Your task to perform on an android device: Is it going to rain tomorrow? Image 0: 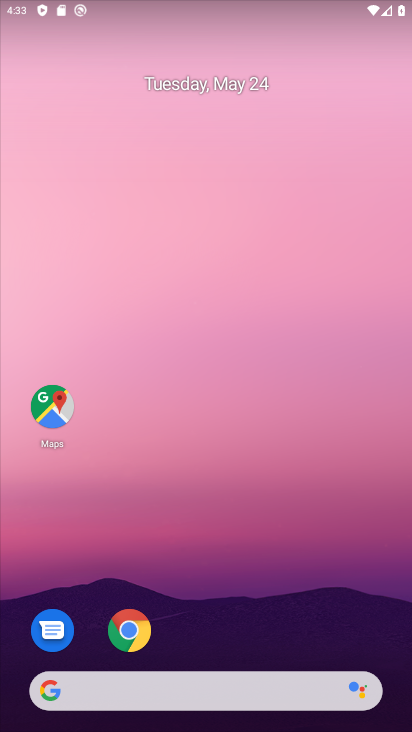
Step 0: click (229, 677)
Your task to perform on an android device: Is it going to rain tomorrow? Image 1: 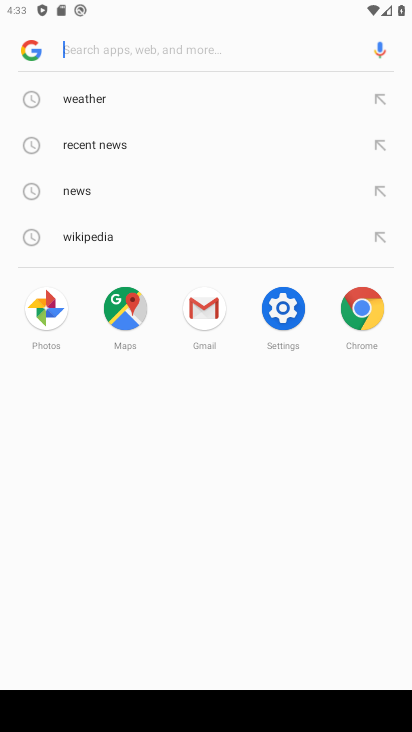
Step 1: click (96, 101)
Your task to perform on an android device: Is it going to rain tomorrow? Image 2: 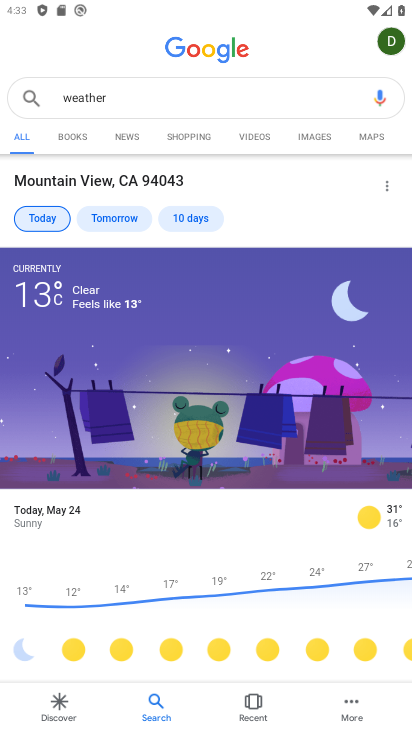
Step 2: click (132, 225)
Your task to perform on an android device: Is it going to rain tomorrow? Image 3: 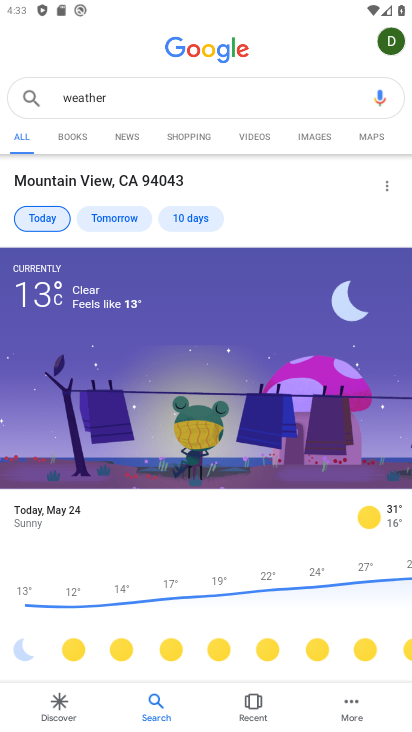
Step 3: click (132, 225)
Your task to perform on an android device: Is it going to rain tomorrow? Image 4: 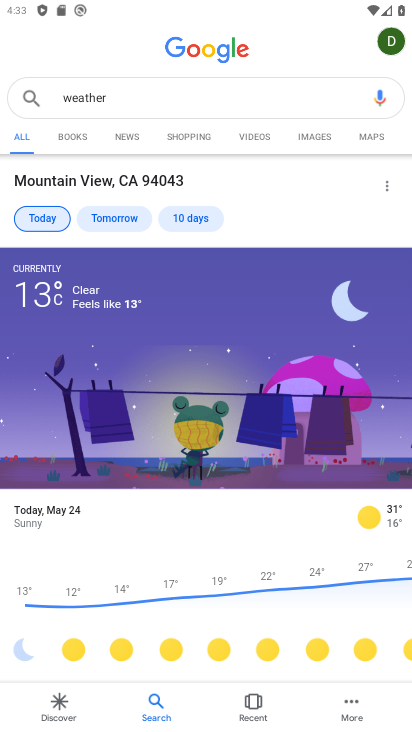
Step 4: click (132, 225)
Your task to perform on an android device: Is it going to rain tomorrow? Image 5: 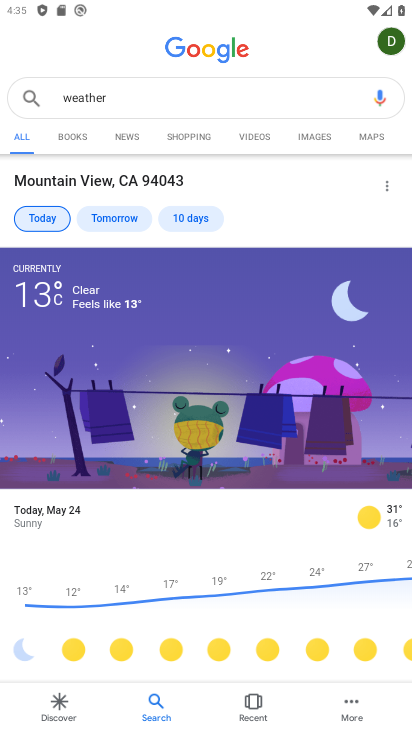
Step 5: click (114, 216)
Your task to perform on an android device: Is it going to rain tomorrow? Image 6: 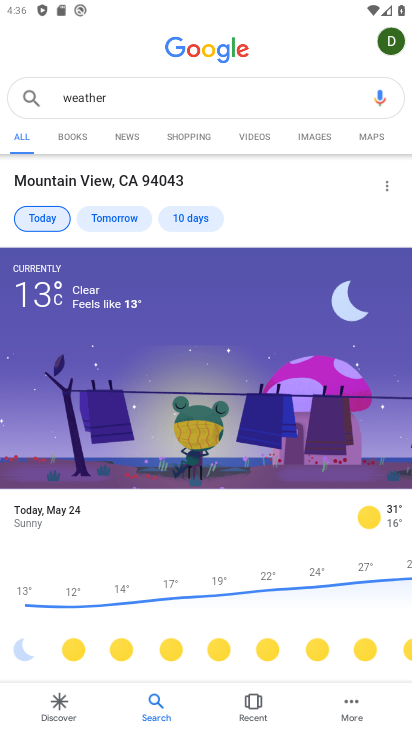
Step 6: click (114, 213)
Your task to perform on an android device: Is it going to rain tomorrow? Image 7: 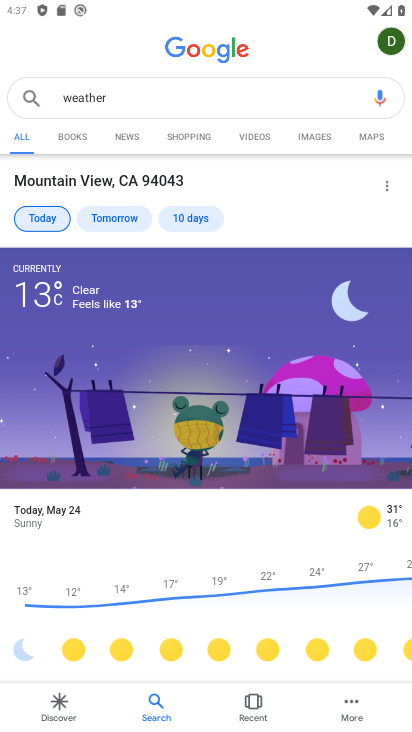
Step 7: click (139, 218)
Your task to perform on an android device: Is it going to rain tomorrow? Image 8: 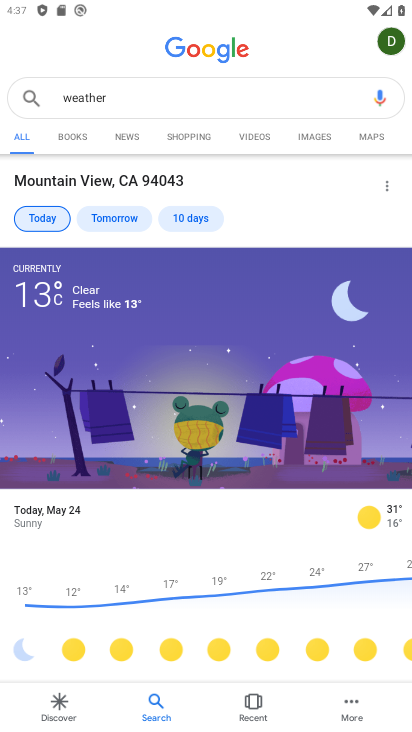
Step 8: click (139, 218)
Your task to perform on an android device: Is it going to rain tomorrow? Image 9: 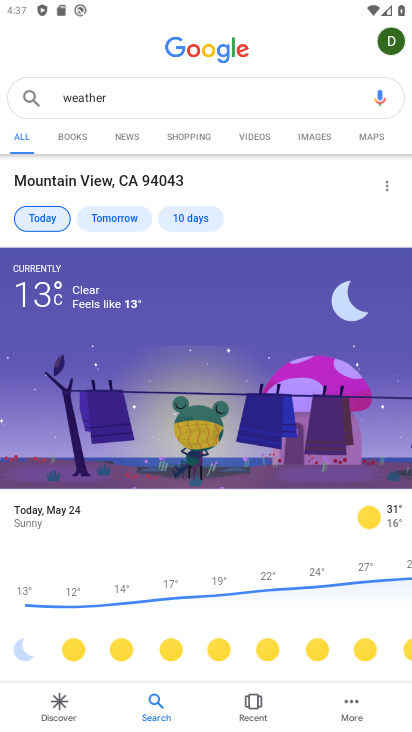
Step 9: click (139, 218)
Your task to perform on an android device: Is it going to rain tomorrow? Image 10: 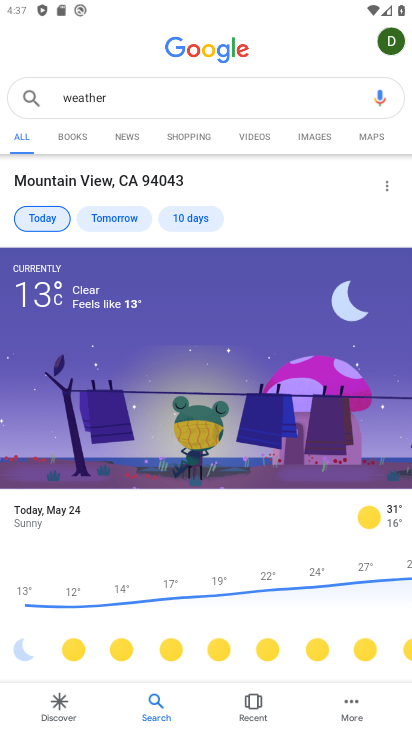
Step 10: drag from (167, 635) to (157, 282)
Your task to perform on an android device: Is it going to rain tomorrow? Image 11: 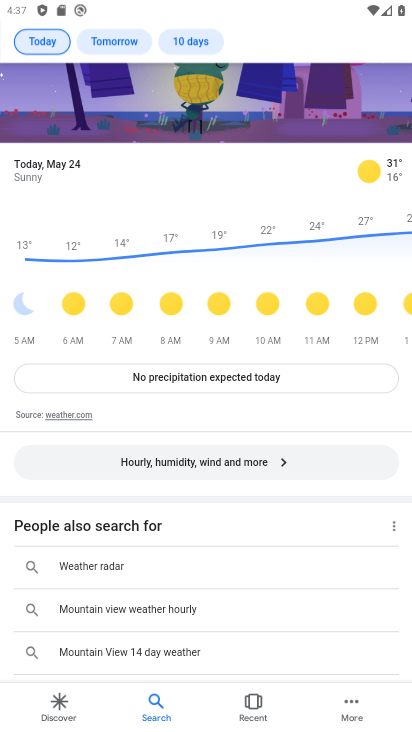
Step 11: click (75, 413)
Your task to perform on an android device: Is it going to rain tomorrow? Image 12: 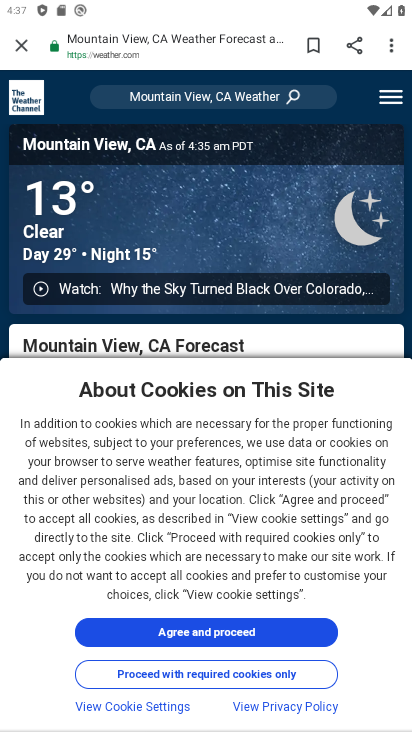
Step 12: click (285, 630)
Your task to perform on an android device: Is it going to rain tomorrow? Image 13: 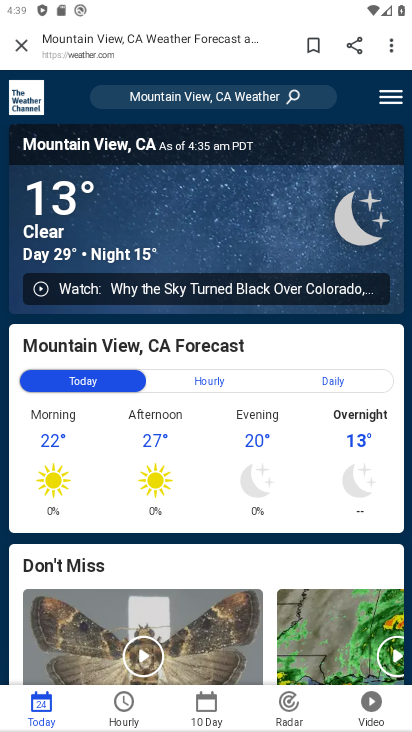
Step 13: click (209, 715)
Your task to perform on an android device: Is it going to rain tomorrow? Image 14: 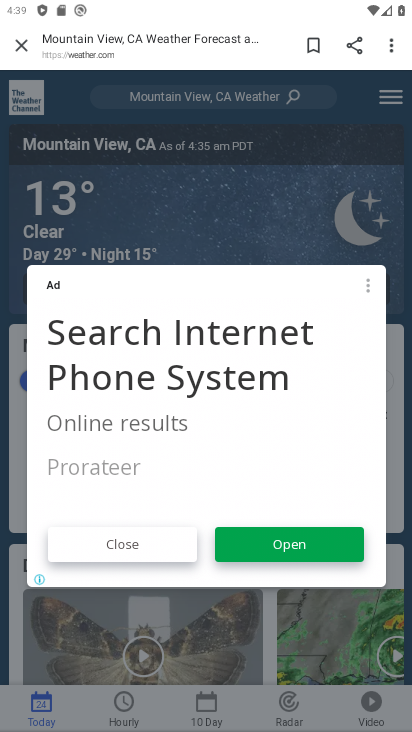
Step 14: click (199, 711)
Your task to perform on an android device: Is it going to rain tomorrow? Image 15: 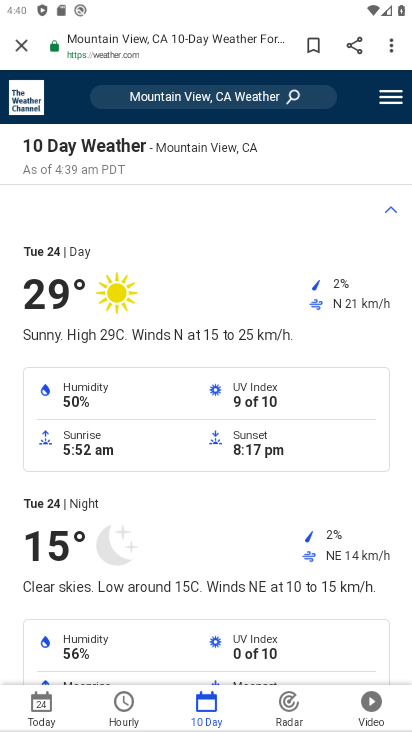
Step 15: click (200, 696)
Your task to perform on an android device: Is it going to rain tomorrow? Image 16: 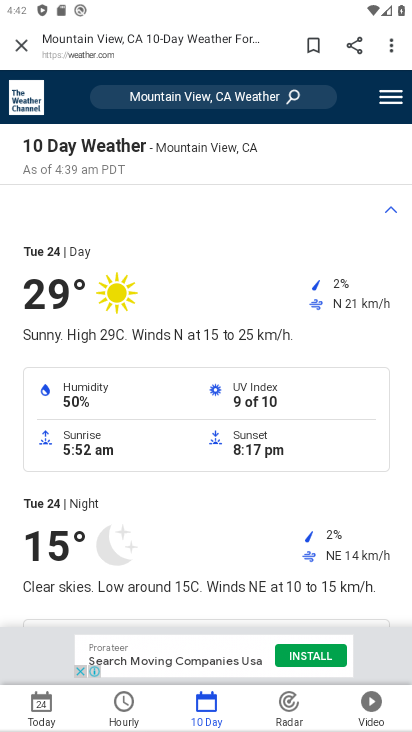
Step 16: task complete